Your task to perform on an android device: Open the map Image 0: 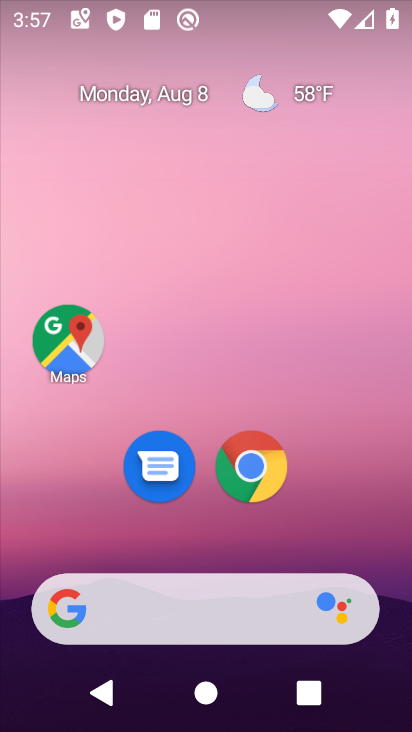
Step 0: click (72, 320)
Your task to perform on an android device: Open the map Image 1: 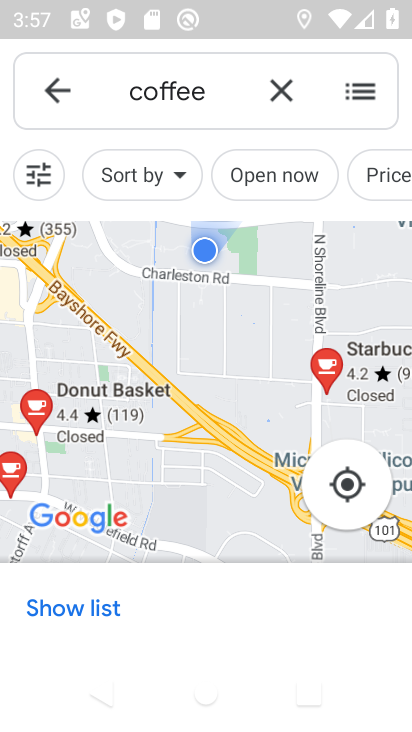
Step 1: task complete